Your task to perform on an android device: Search for Italian restaurants on Maps Image 0: 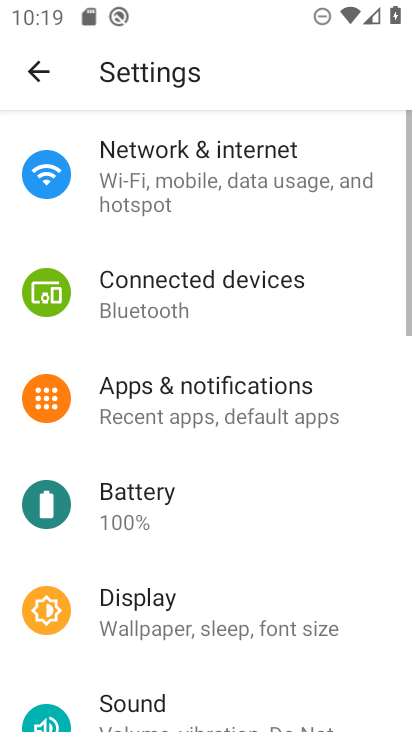
Step 0: press home button
Your task to perform on an android device: Search for Italian restaurants on Maps Image 1: 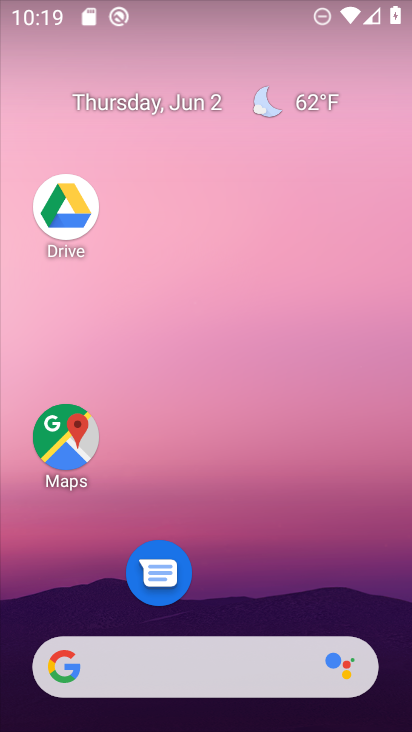
Step 1: drag from (264, 614) to (254, 4)
Your task to perform on an android device: Search for Italian restaurants on Maps Image 2: 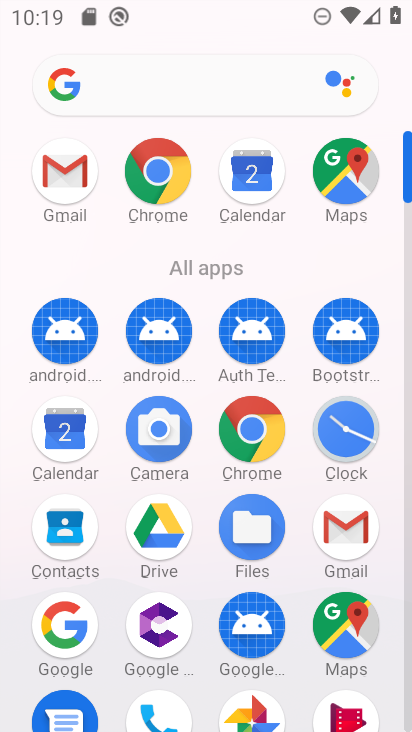
Step 2: click (358, 627)
Your task to perform on an android device: Search for Italian restaurants on Maps Image 3: 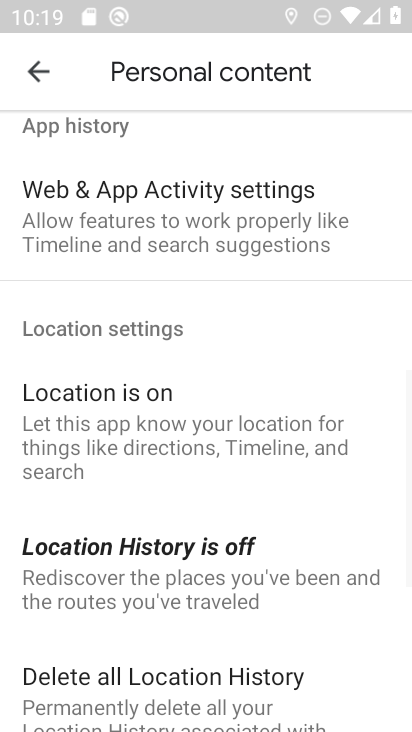
Step 3: press back button
Your task to perform on an android device: Search for Italian restaurants on Maps Image 4: 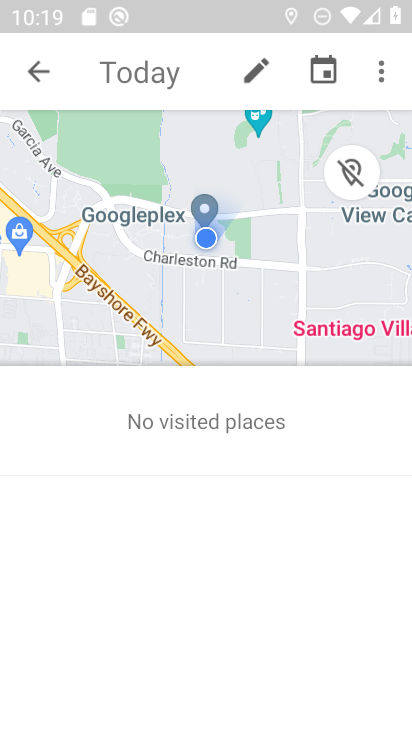
Step 4: click (27, 66)
Your task to perform on an android device: Search for Italian restaurants on Maps Image 5: 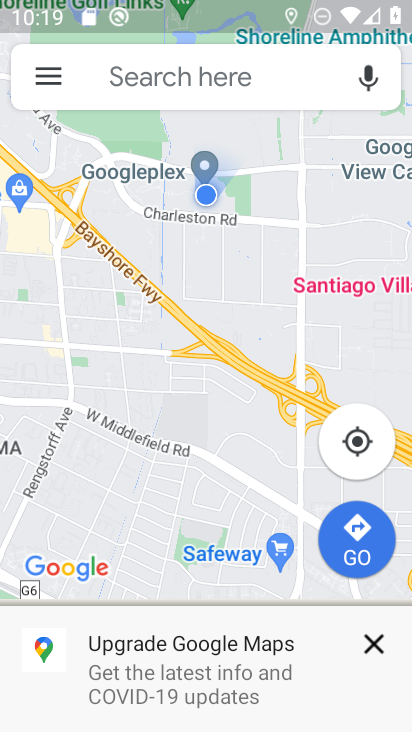
Step 5: click (126, 82)
Your task to perform on an android device: Search for Italian restaurants on Maps Image 6: 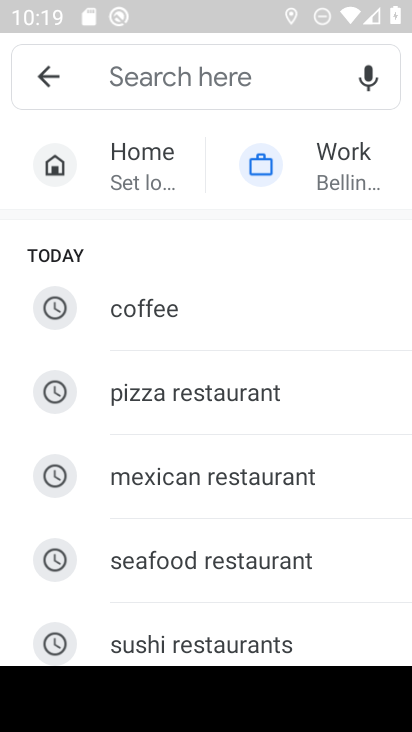
Step 6: drag from (213, 573) to (223, 149)
Your task to perform on an android device: Search for Italian restaurants on Maps Image 7: 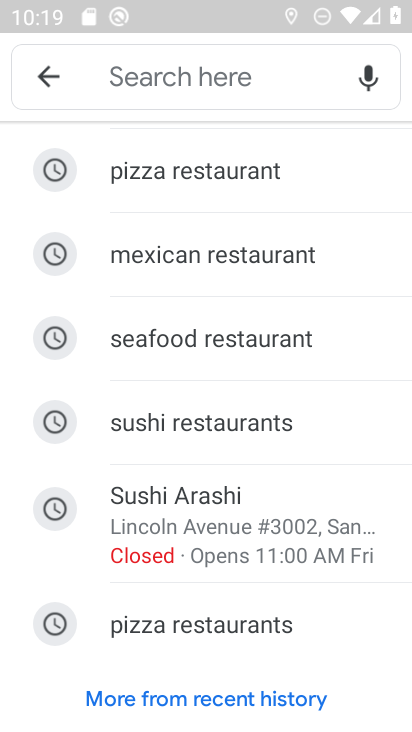
Step 7: click (240, 680)
Your task to perform on an android device: Search for Italian restaurants on Maps Image 8: 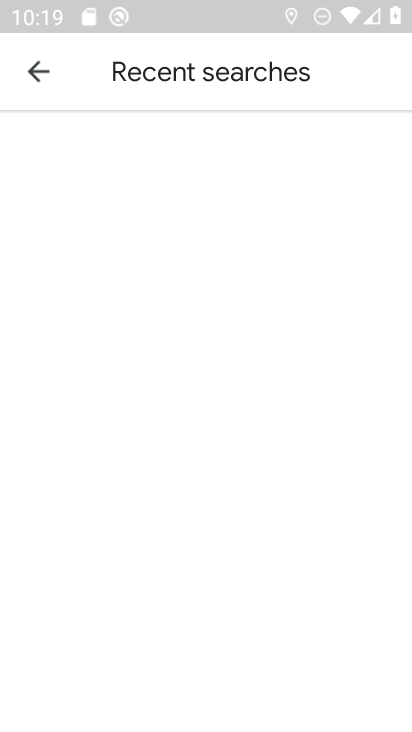
Step 8: drag from (240, 680) to (252, 153)
Your task to perform on an android device: Search for Italian restaurants on Maps Image 9: 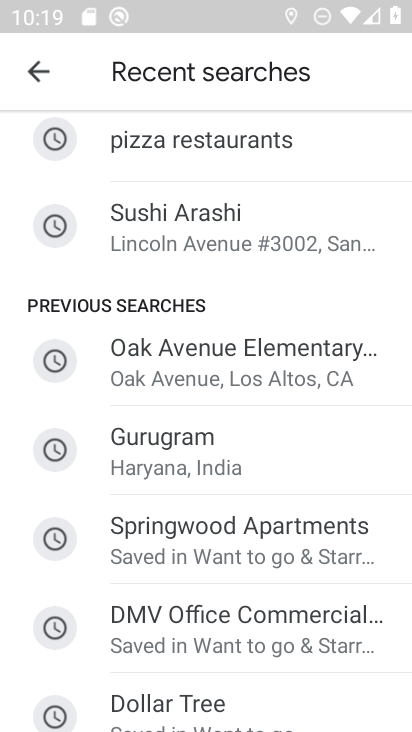
Step 9: drag from (222, 242) to (251, 716)
Your task to perform on an android device: Search for Italian restaurants on Maps Image 10: 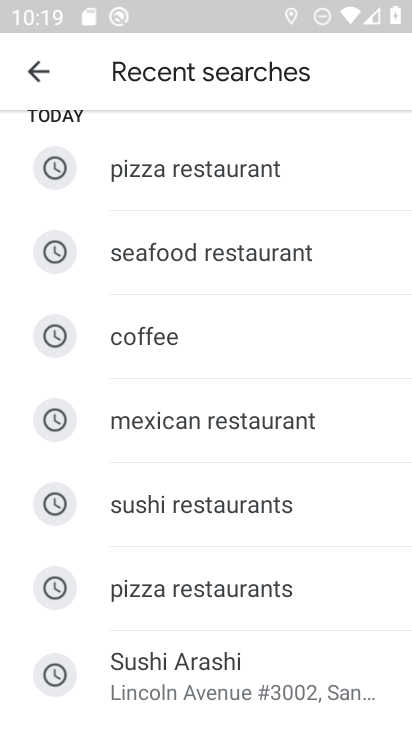
Step 10: click (35, 83)
Your task to perform on an android device: Search for Italian restaurants on Maps Image 11: 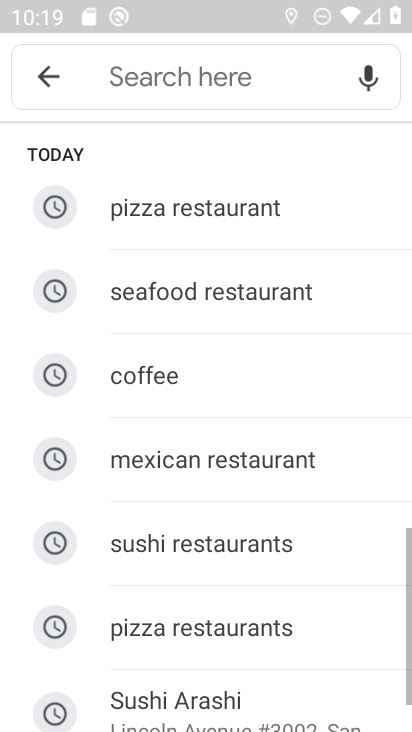
Step 11: click (149, 89)
Your task to perform on an android device: Search for Italian restaurants on Maps Image 12: 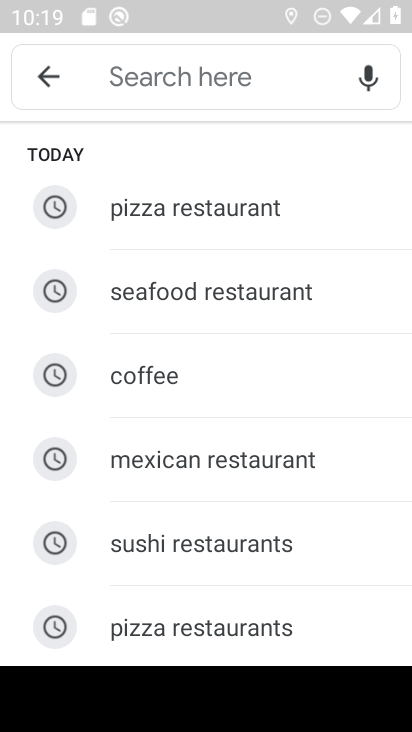
Step 12: type "italian"
Your task to perform on an android device: Search for Italian restaurants on Maps Image 13: 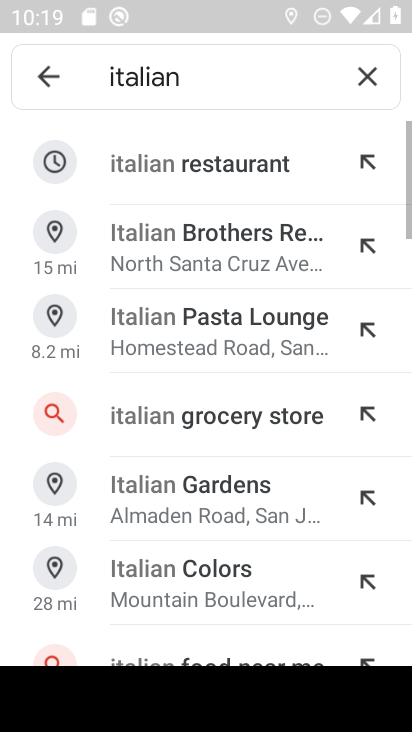
Step 13: click (174, 155)
Your task to perform on an android device: Search for Italian restaurants on Maps Image 14: 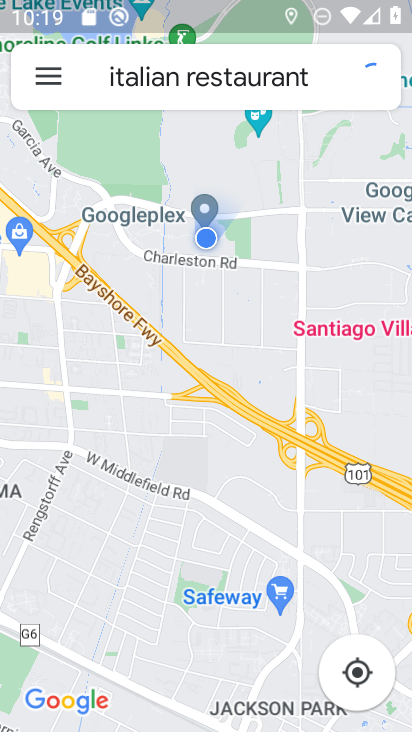
Step 14: task complete